Your task to perform on an android device: Open accessibility settings Image 0: 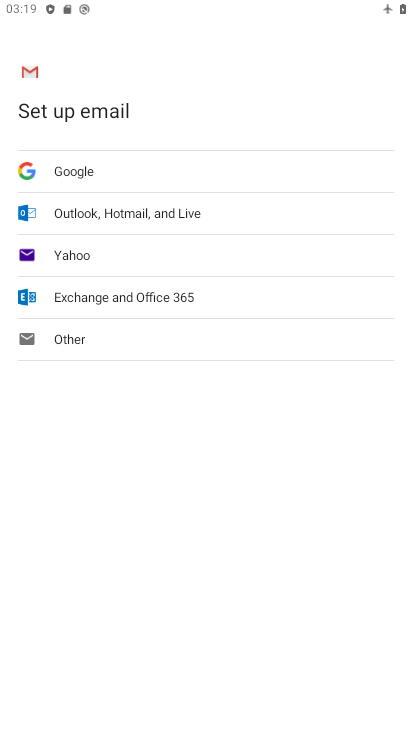
Step 0: press home button
Your task to perform on an android device: Open accessibility settings Image 1: 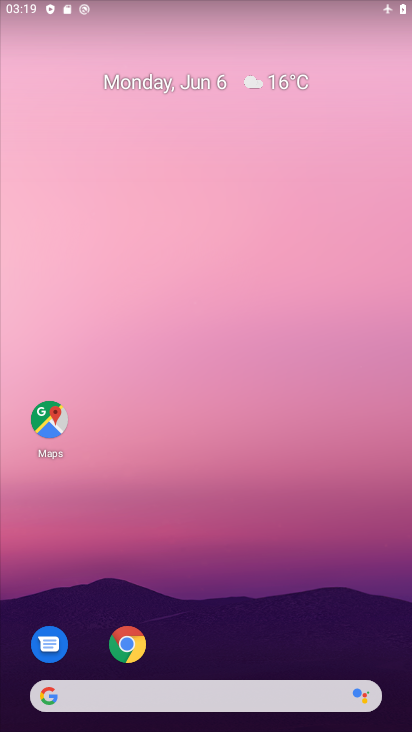
Step 1: drag from (200, 623) to (244, 184)
Your task to perform on an android device: Open accessibility settings Image 2: 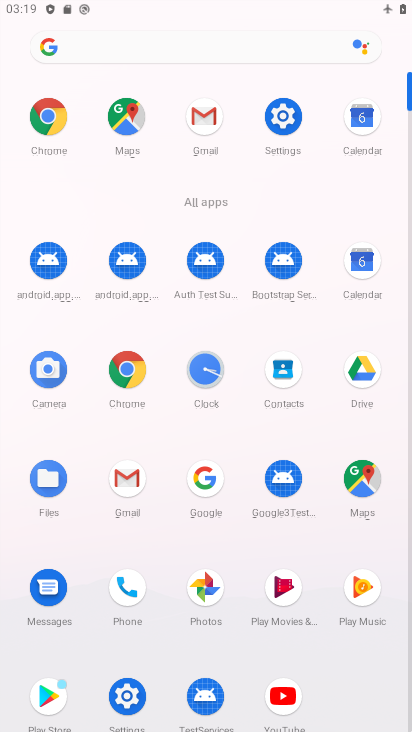
Step 2: click (274, 126)
Your task to perform on an android device: Open accessibility settings Image 3: 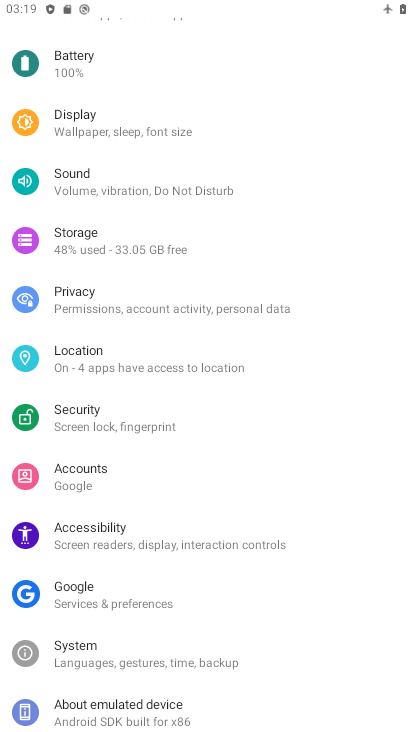
Step 3: drag from (151, 138) to (122, 427)
Your task to perform on an android device: Open accessibility settings Image 4: 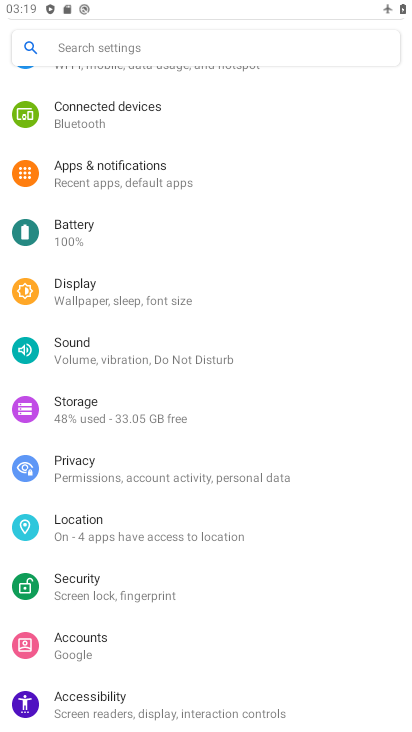
Step 4: click (101, 702)
Your task to perform on an android device: Open accessibility settings Image 5: 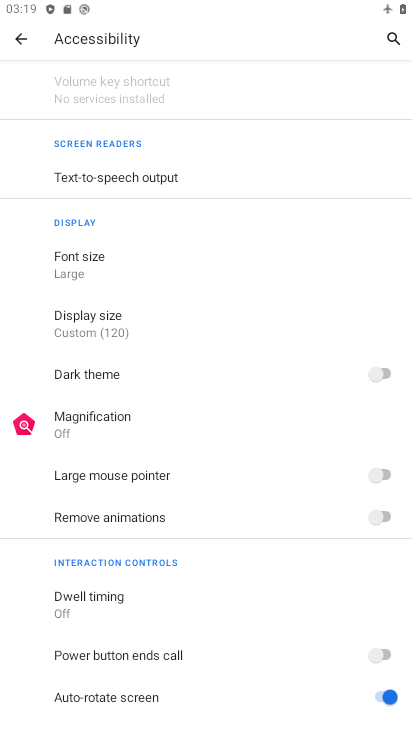
Step 5: task complete